Your task to perform on an android device: Open calendar and show me the second week of next month Image 0: 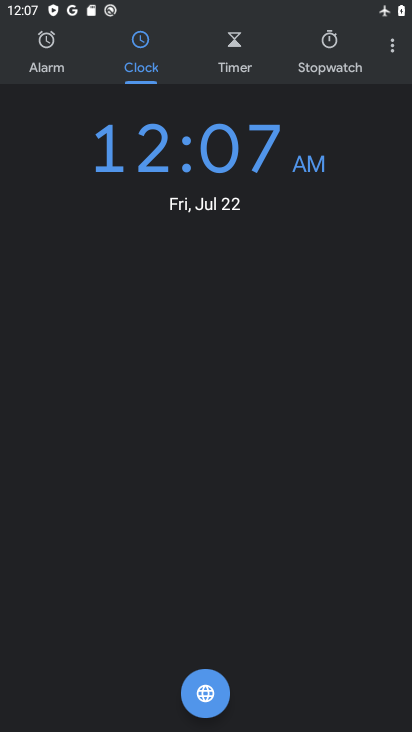
Step 0: press home button
Your task to perform on an android device: Open calendar and show me the second week of next month Image 1: 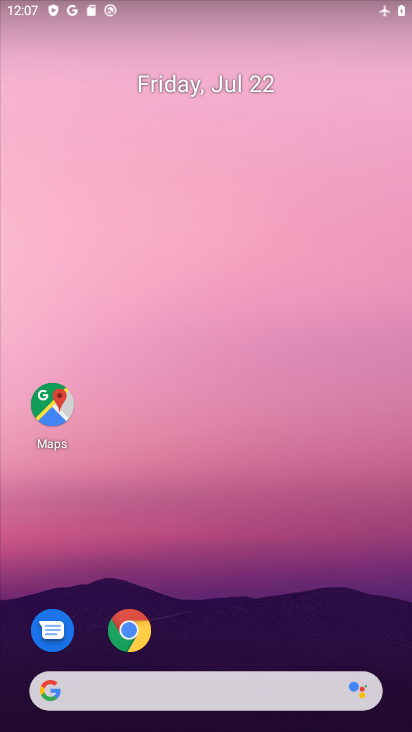
Step 1: drag from (233, 671) to (206, 163)
Your task to perform on an android device: Open calendar and show me the second week of next month Image 2: 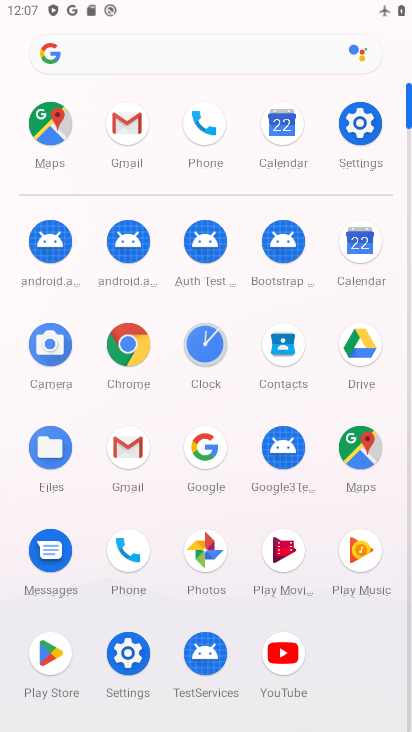
Step 2: click (297, 138)
Your task to perform on an android device: Open calendar and show me the second week of next month Image 3: 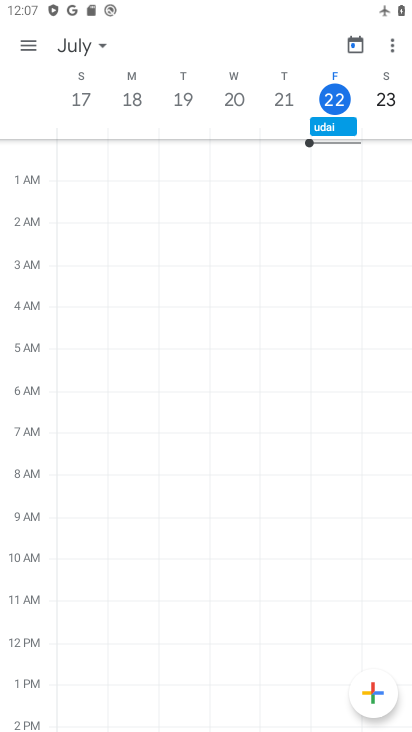
Step 3: task complete